Your task to perform on an android device: Turn on the flashlight Image 0: 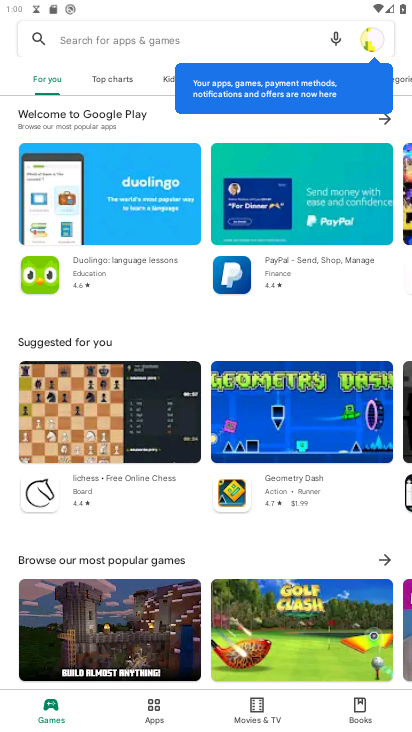
Step 0: press home button
Your task to perform on an android device: Turn on the flashlight Image 1: 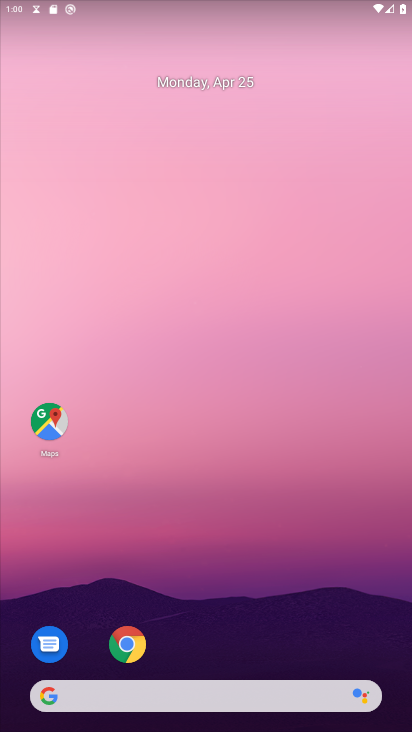
Step 1: task complete